Your task to perform on an android device: turn on the 12-hour format for clock Image 0: 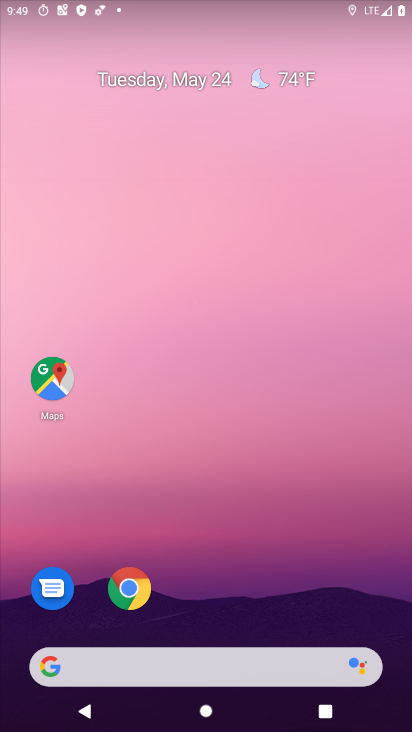
Step 0: drag from (237, 555) to (191, 15)
Your task to perform on an android device: turn on the 12-hour format for clock Image 1: 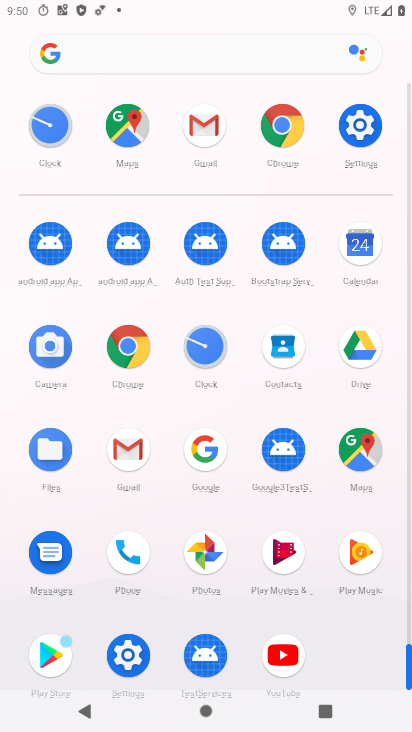
Step 1: drag from (0, 590) to (4, 220)
Your task to perform on an android device: turn on the 12-hour format for clock Image 2: 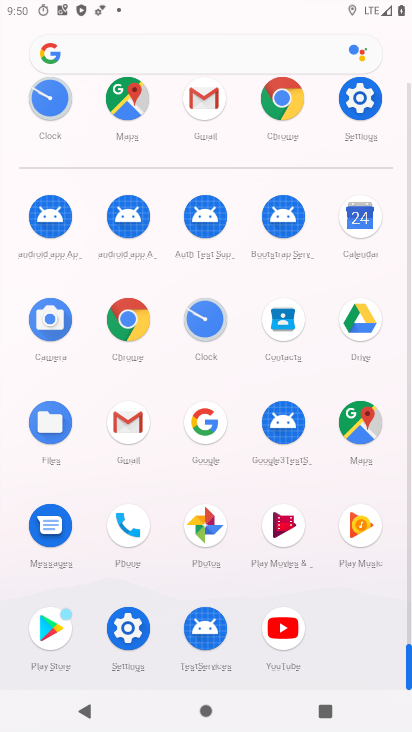
Step 2: click (203, 317)
Your task to perform on an android device: turn on the 12-hour format for clock Image 3: 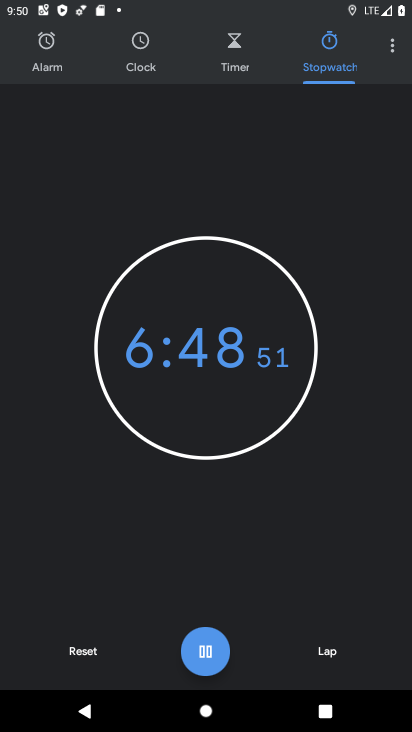
Step 3: drag from (389, 47) to (307, 76)
Your task to perform on an android device: turn on the 12-hour format for clock Image 4: 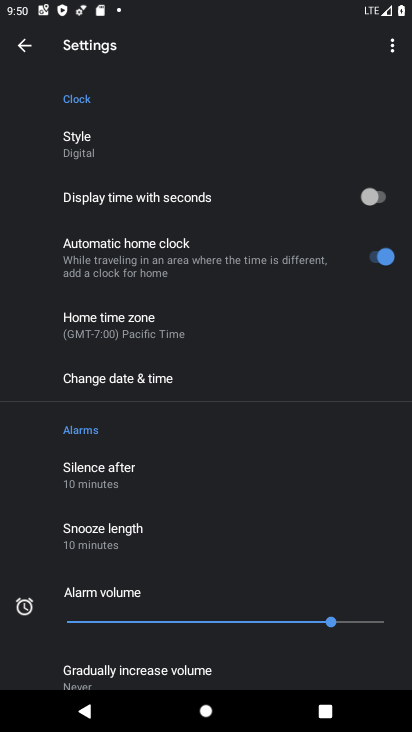
Step 4: click (177, 371)
Your task to perform on an android device: turn on the 12-hour format for clock Image 5: 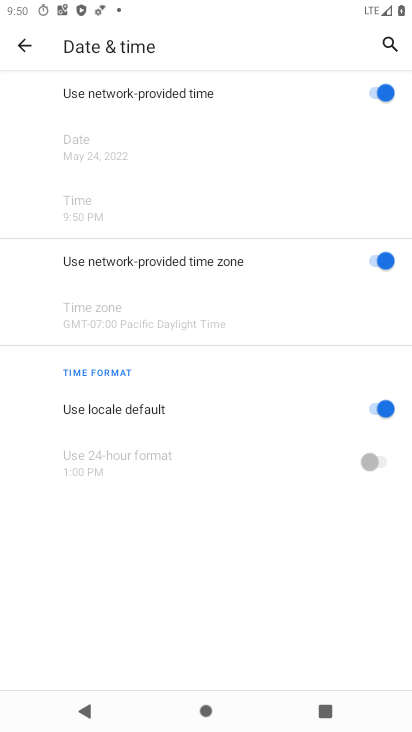
Step 5: task complete